Your task to perform on an android device: empty trash in the gmail app Image 0: 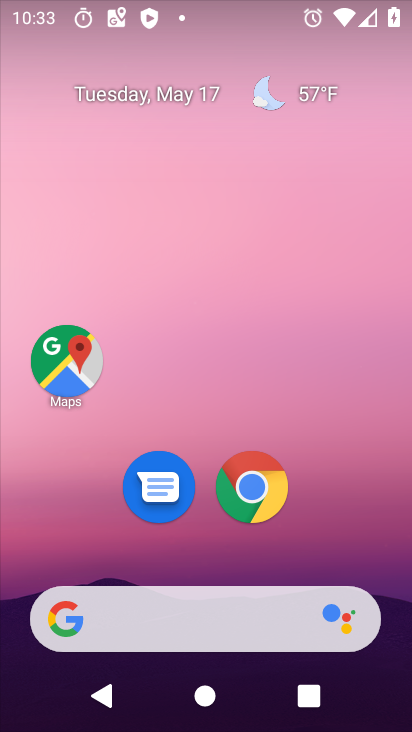
Step 0: drag from (214, 729) to (206, 32)
Your task to perform on an android device: empty trash in the gmail app Image 1: 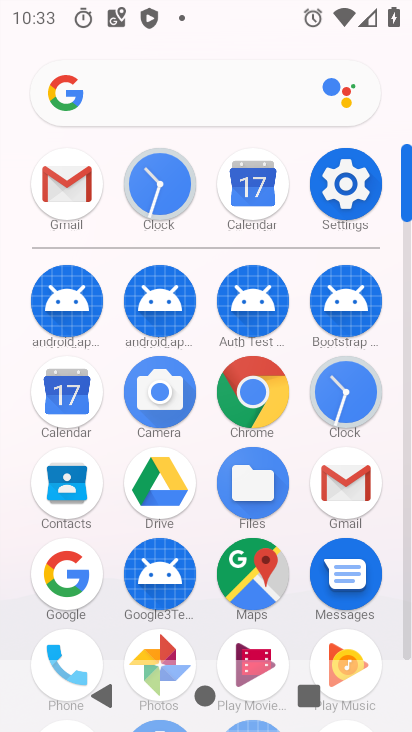
Step 1: click (342, 479)
Your task to perform on an android device: empty trash in the gmail app Image 2: 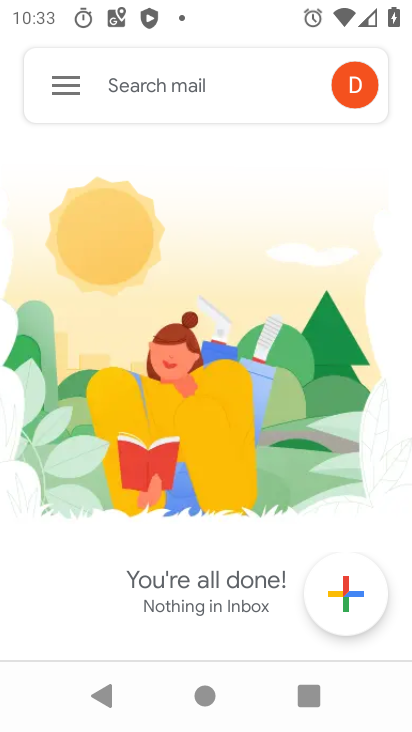
Step 2: click (66, 83)
Your task to perform on an android device: empty trash in the gmail app Image 3: 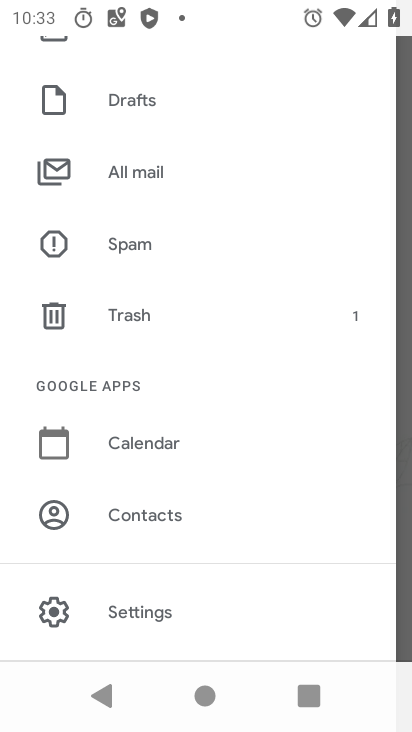
Step 3: click (115, 313)
Your task to perform on an android device: empty trash in the gmail app Image 4: 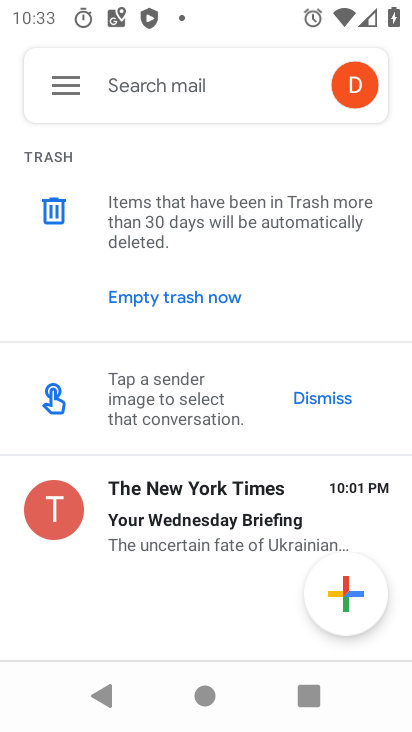
Step 4: click (168, 295)
Your task to perform on an android device: empty trash in the gmail app Image 5: 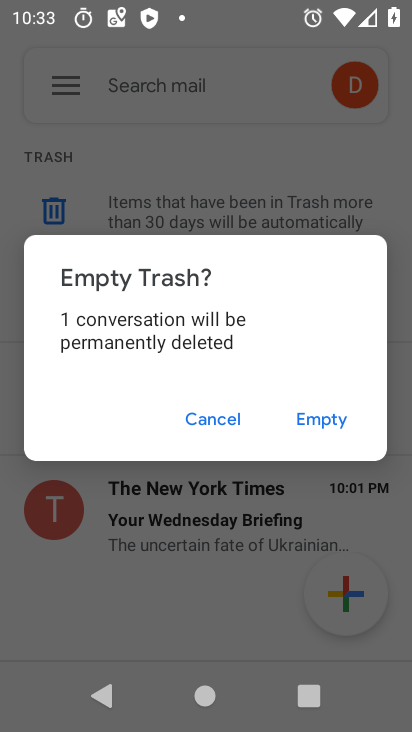
Step 5: click (328, 418)
Your task to perform on an android device: empty trash in the gmail app Image 6: 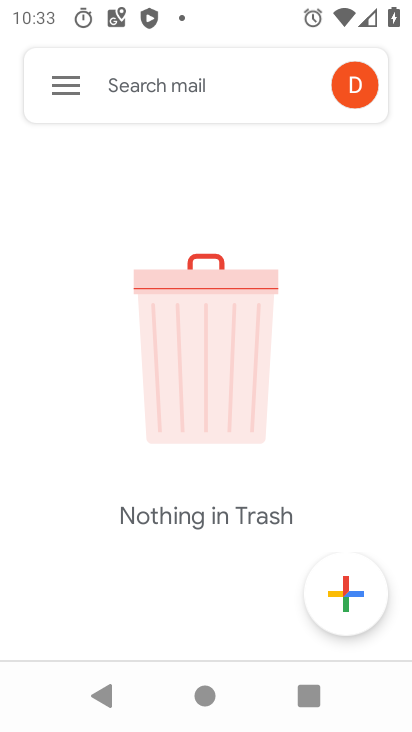
Step 6: task complete